Your task to perform on an android device: Open Google Image 0: 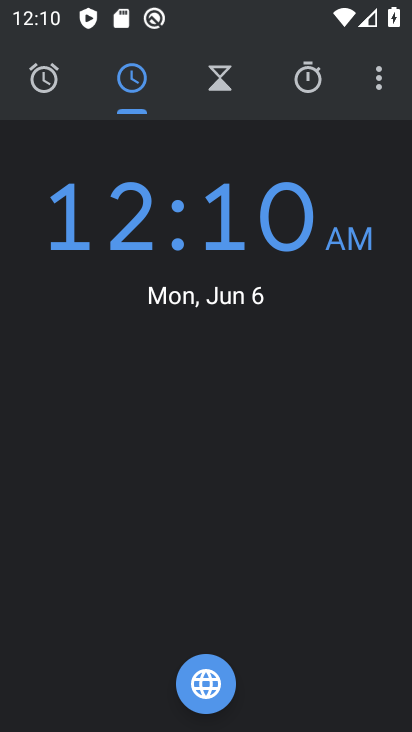
Step 0: press home button
Your task to perform on an android device: Open Google Image 1: 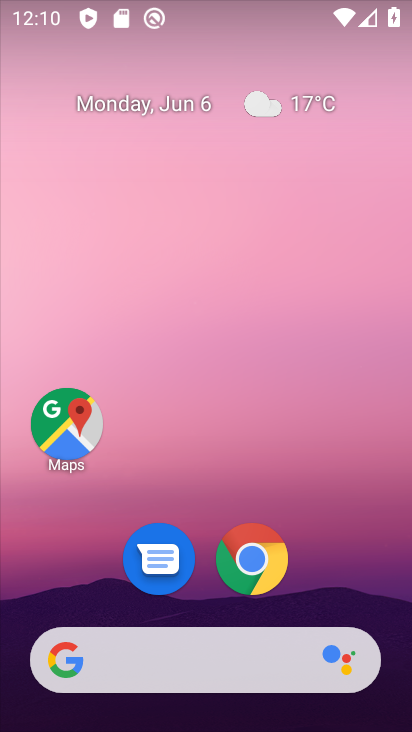
Step 1: drag from (211, 517) to (143, 146)
Your task to perform on an android device: Open Google Image 2: 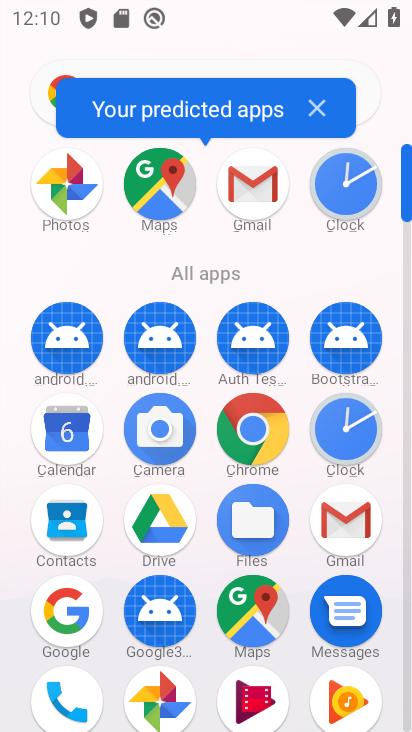
Step 2: click (46, 90)
Your task to perform on an android device: Open Google Image 3: 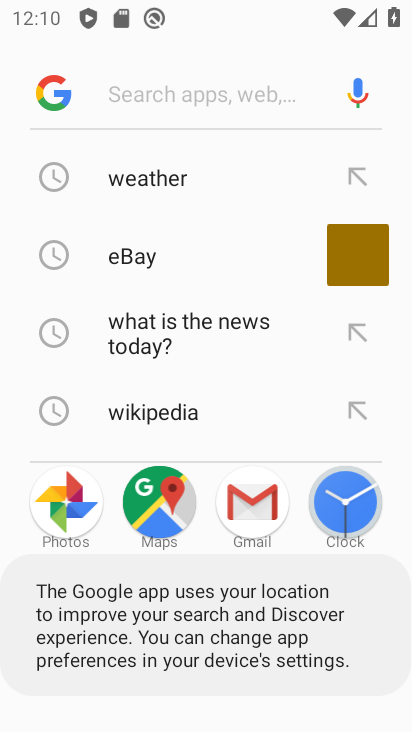
Step 3: click (47, 90)
Your task to perform on an android device: Open Google Image 4: 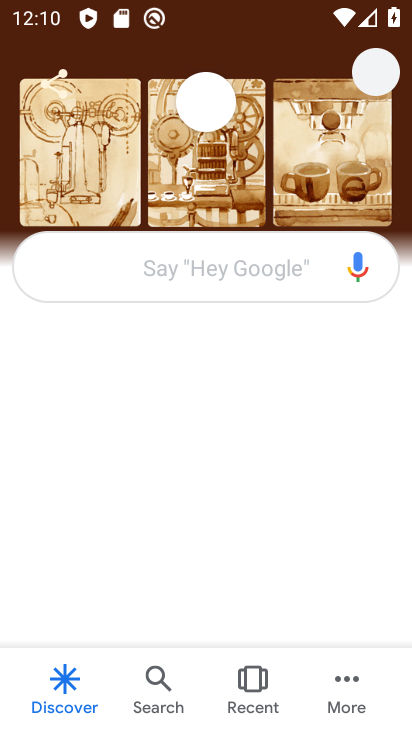
Step 4: task complete